Your task to perform on an android device: change the clock display to show seconds Image 0: 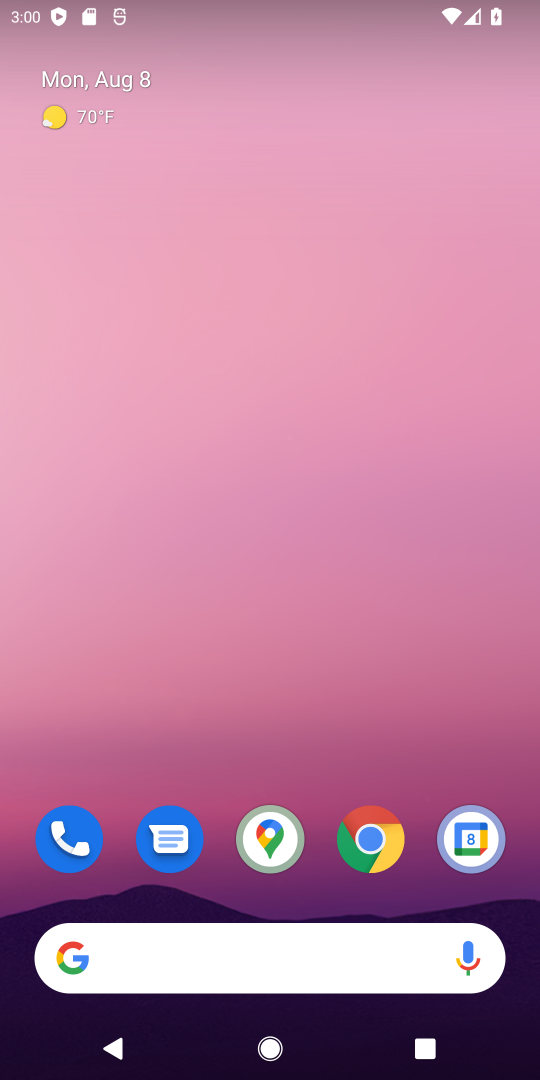
Step 0: press home button
Your task to perform on an android device: change the clock display to show seconds Image 1: 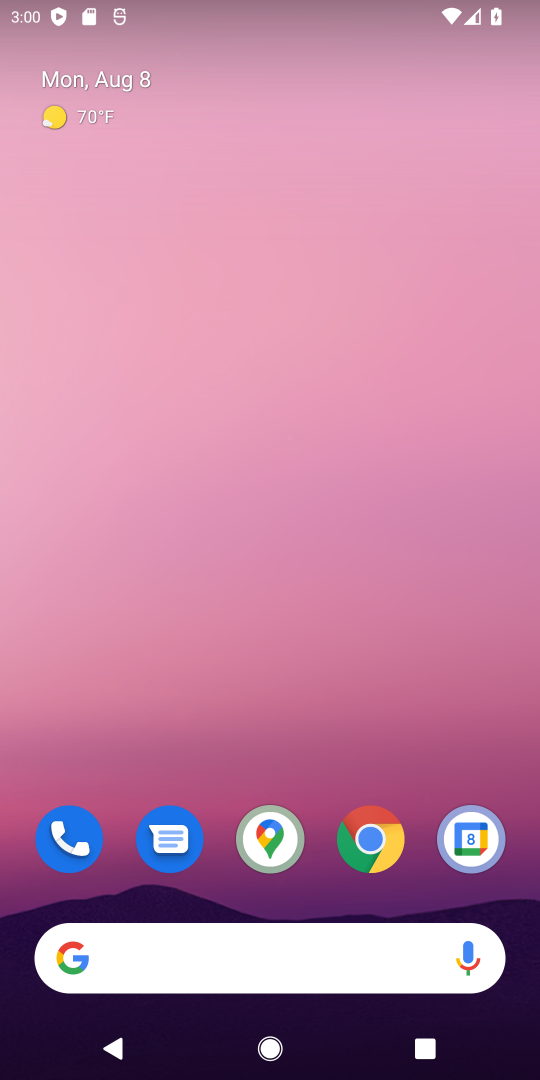
Step 1: drag from (401, 741) to (447, 306)
Your task to perform on an android device: change the clock display to show seconds Image 2: 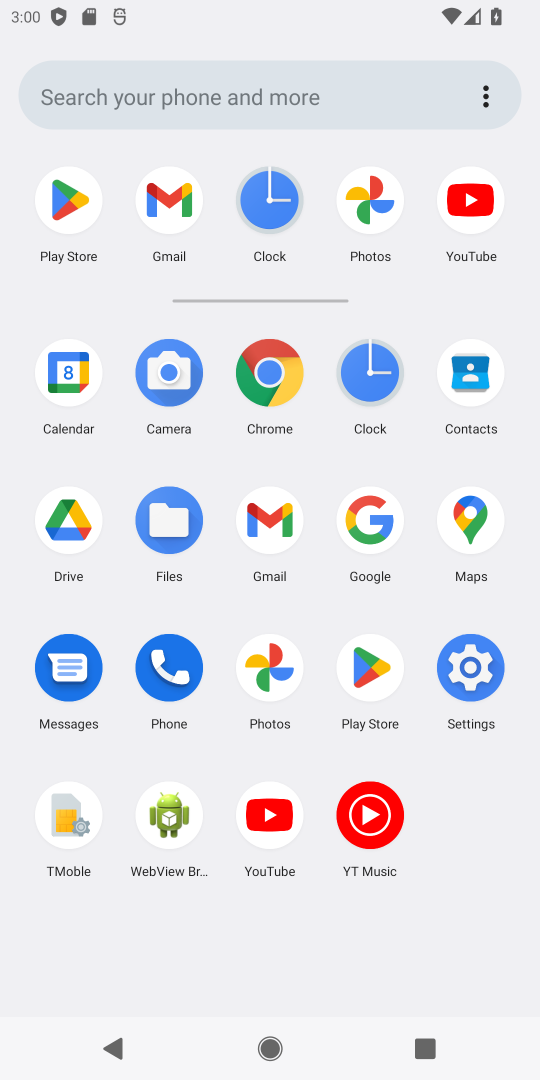
Step 2: click (366, 373)
Your task to perform on an android device: change the clock display to show seconds Image 3: 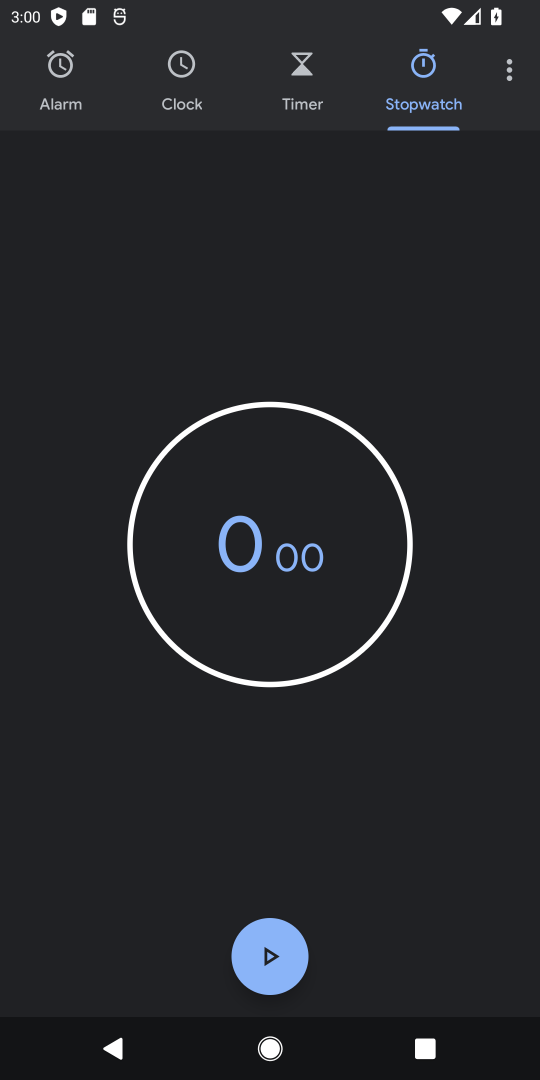
Step 3: click (513, 78)
Your task to perform on an android device: change the clock display to show seconds Image 4: 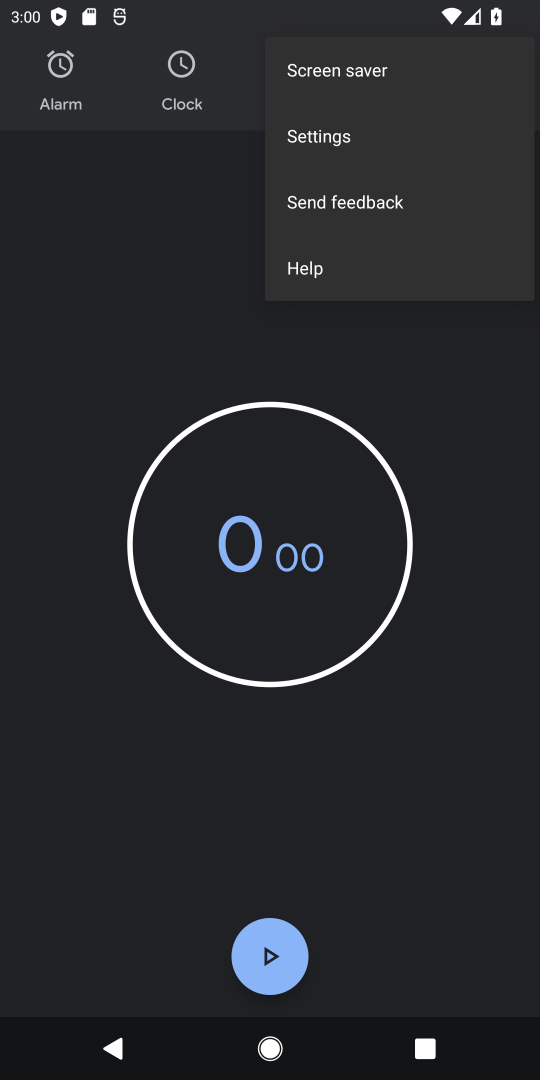
Step 4: click (359, 137)
Your task to perform on an android device: change the clock display to show seconds Image 5: 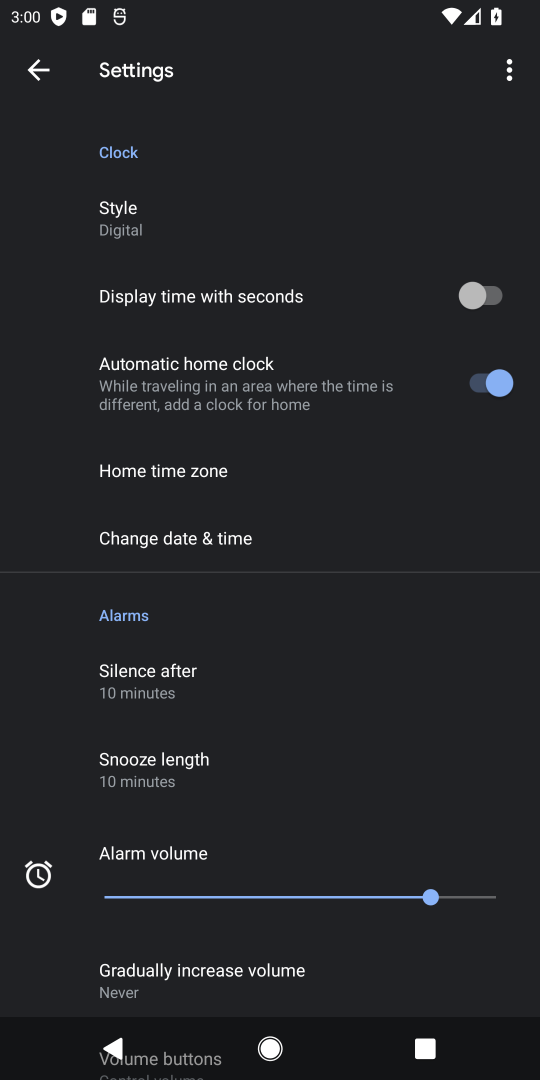
Step 5: drag from (394, 565) to (399, 498)
Your task to perform on an android device: change the clock display to show seconds Image 6: 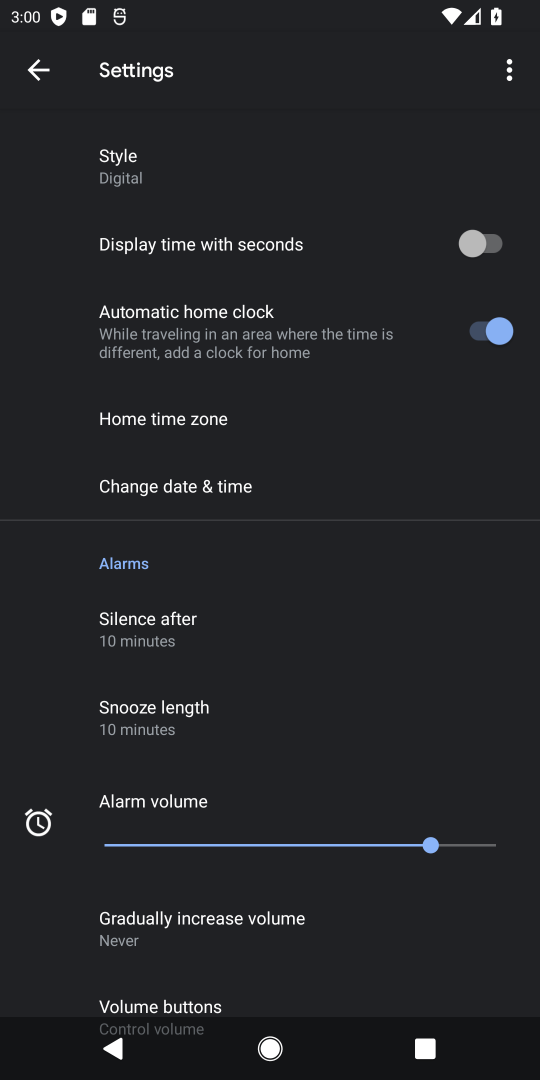
Step 6: drag from (461, 729) to (457, 553)
Your task to perform on an android device: change the clock display to show seconds Image 7: 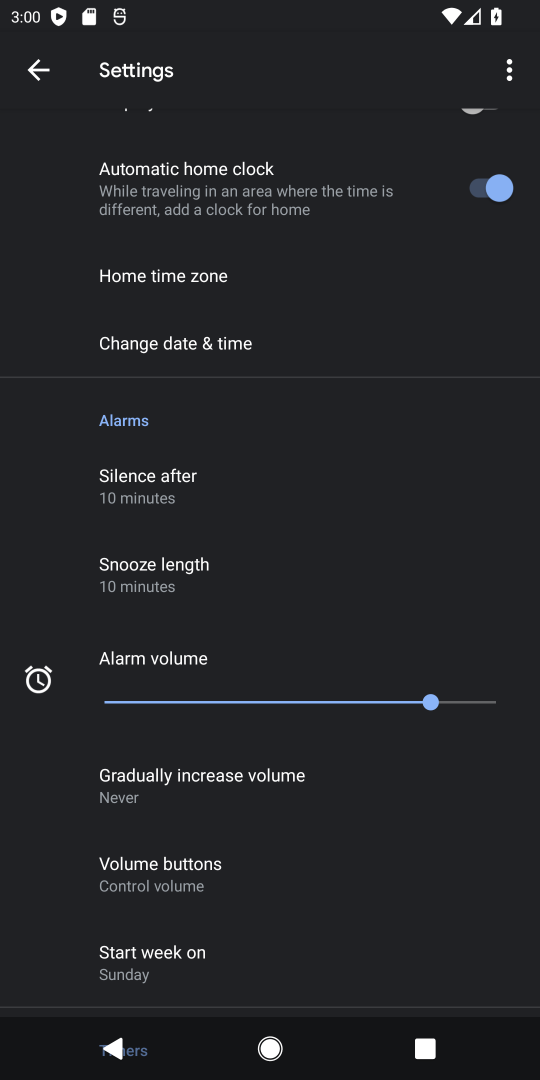
Step 7: drag from (441, 793) to (458, 586)
Your task to perform on an android device: change the clock display to show seconds Image 8: 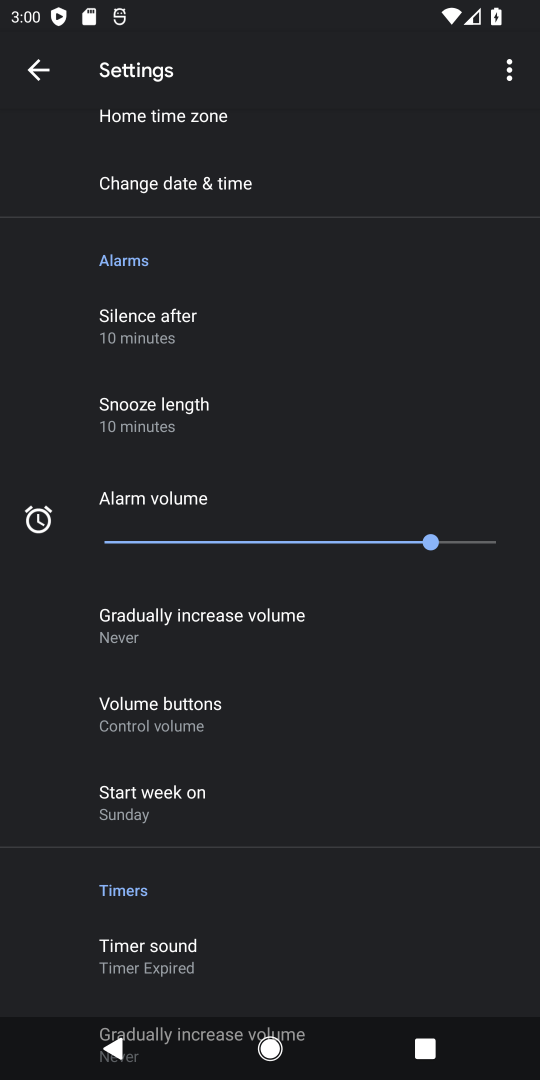
Step 8: drag from (450, 794) to (459, 576)
Your task to perform on an android device: change the clock display to show seconds Image 9: 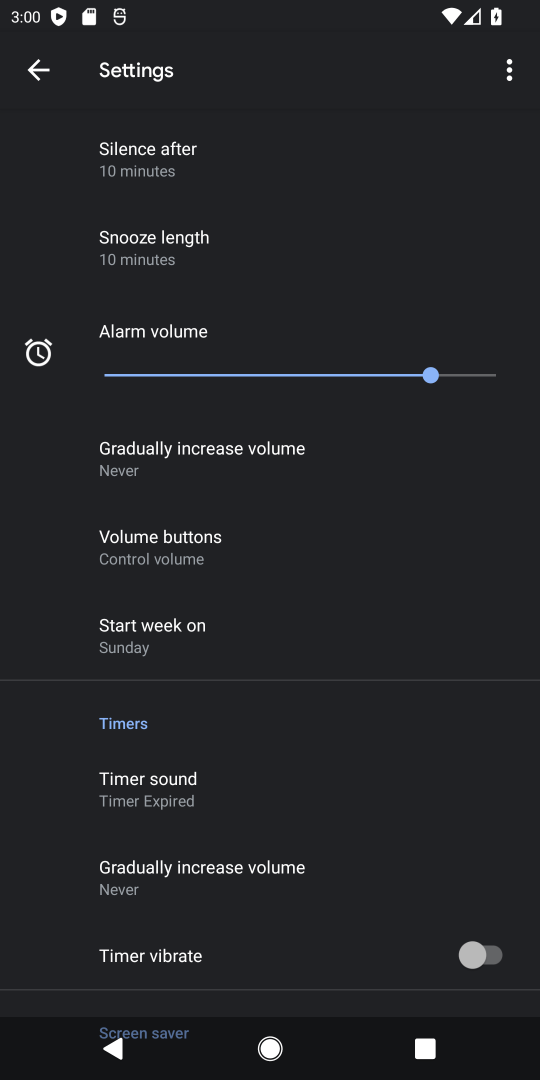
Step 9: drag from (436, 732) to (446, 491)
Your task to perform on an android device: change the clock display to show seconds Image 10: 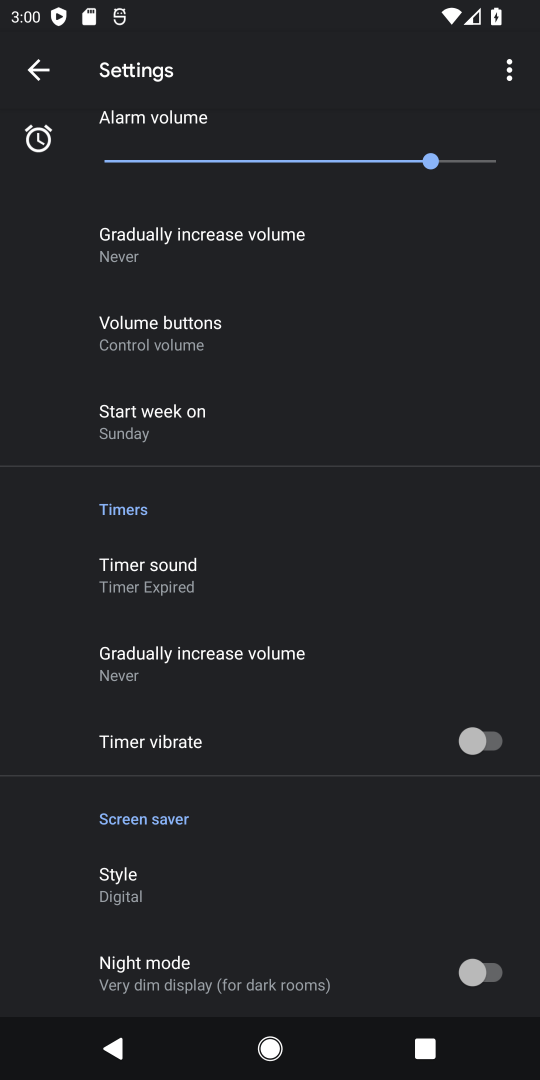
Step 10: drag from (441, 332) to (441, 522)
Your task to perform on an android device: change the clock display to show seconds Image 11: 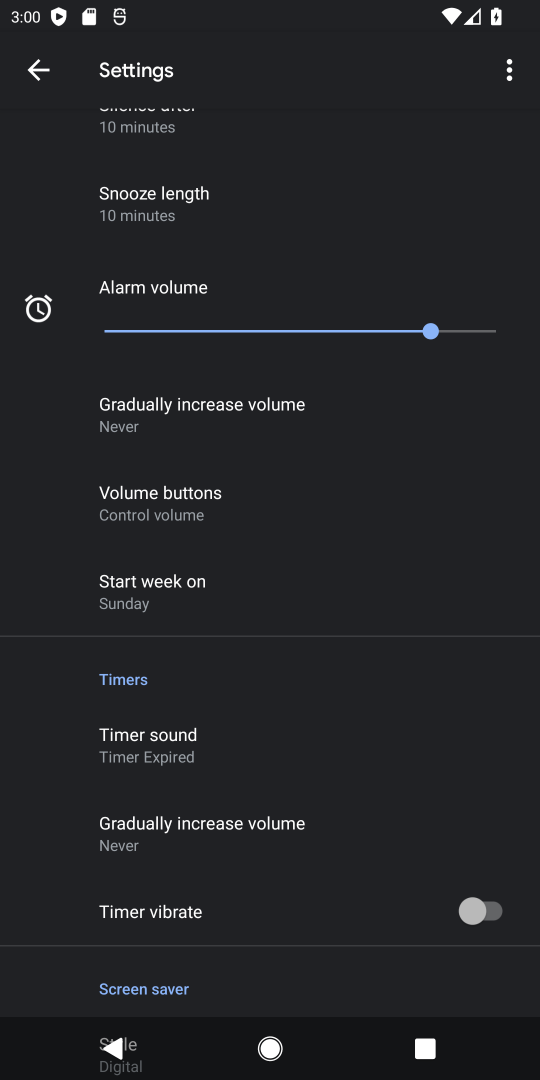
Step 11: drag from (461, 373) to (463, 564)
Your task to perform on an android device: change the clock display to show seconds Image 12: 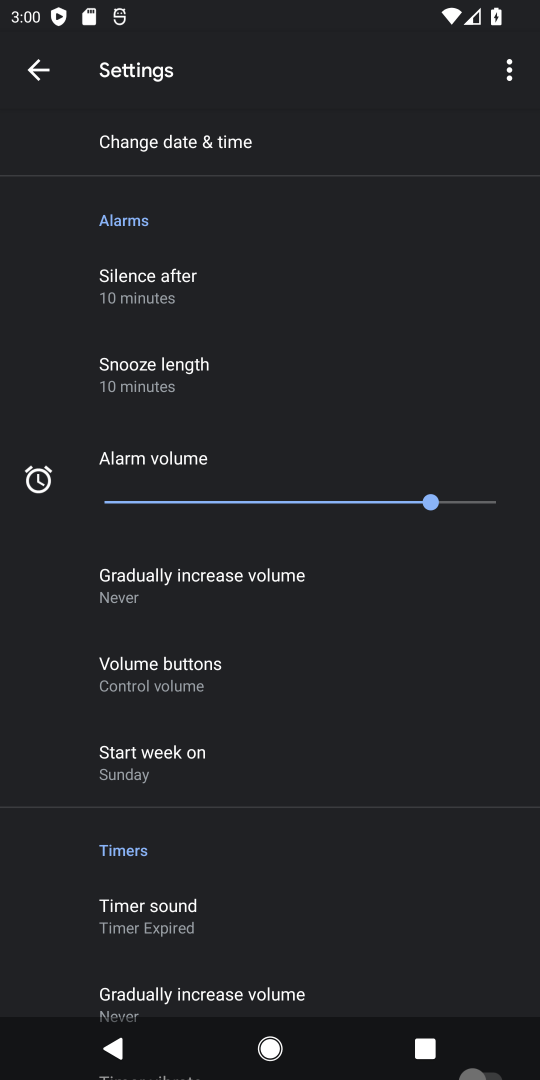
Step 12: drag from (466, 334) to (457, 527)
Your task to perform on an android device: change the clock display to show seconds Image 13: 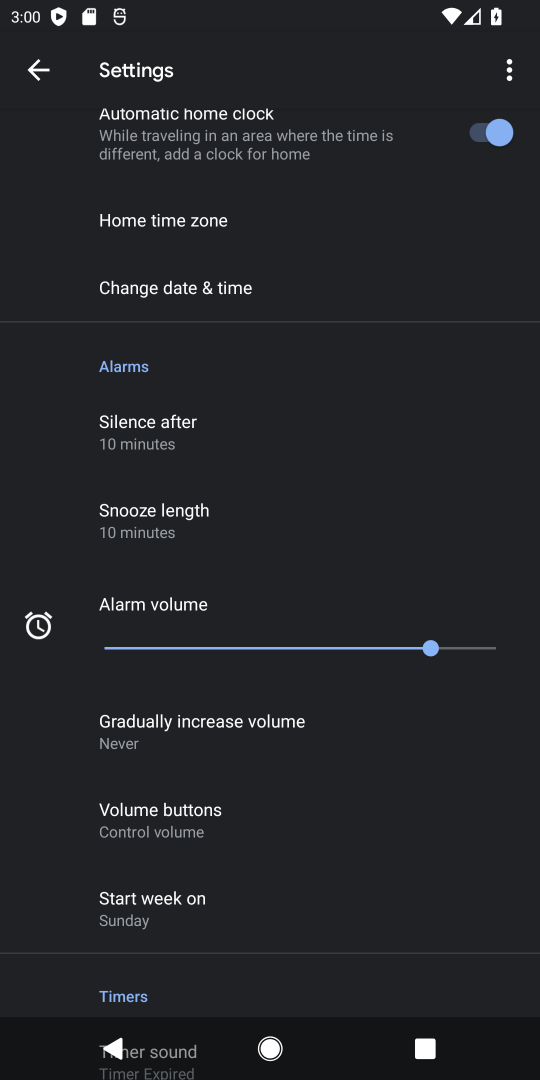
Step 13: drag from (441, 284) to (445, 453)
Your task to perform on an android device: change the clock display to show seconds Image 14: 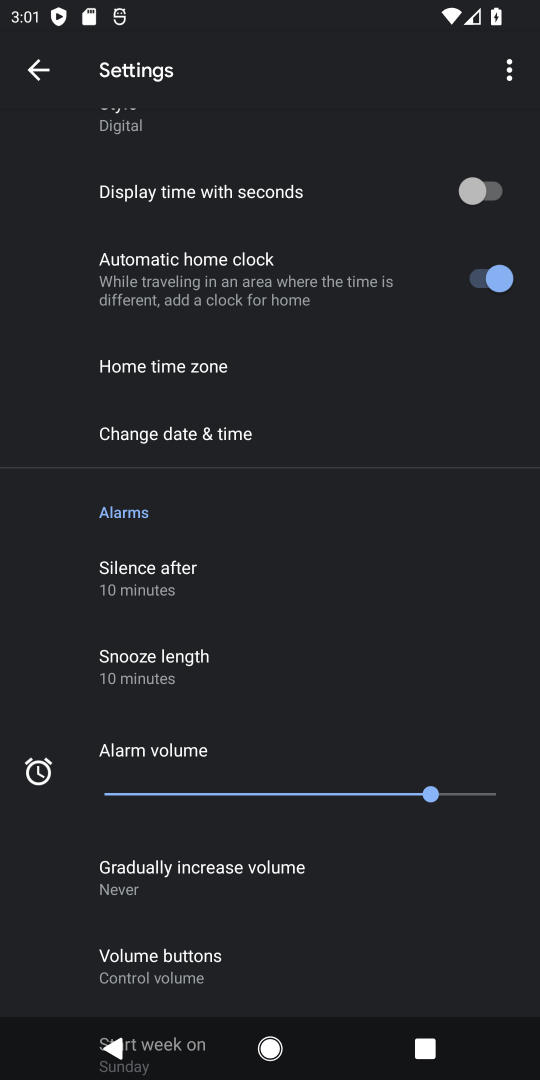
Step 14: drag from (420, 244) to (420, 414)
Your task to perform on an android device: change the clock display to show seconds Image 15: 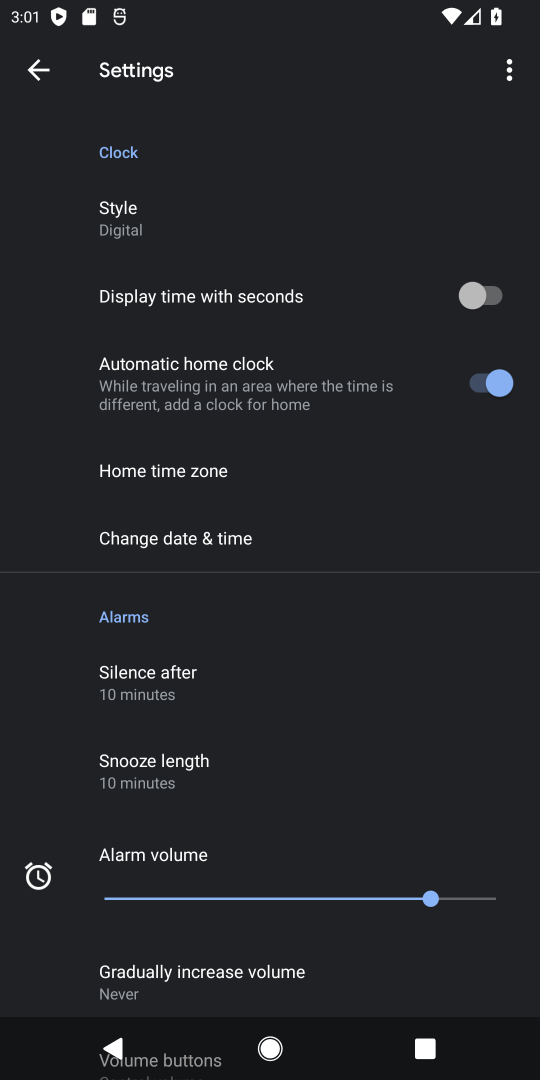
Step 15: click (473, 305)
Your task to perform on an android device: change the clock display to show seconds Image 16: 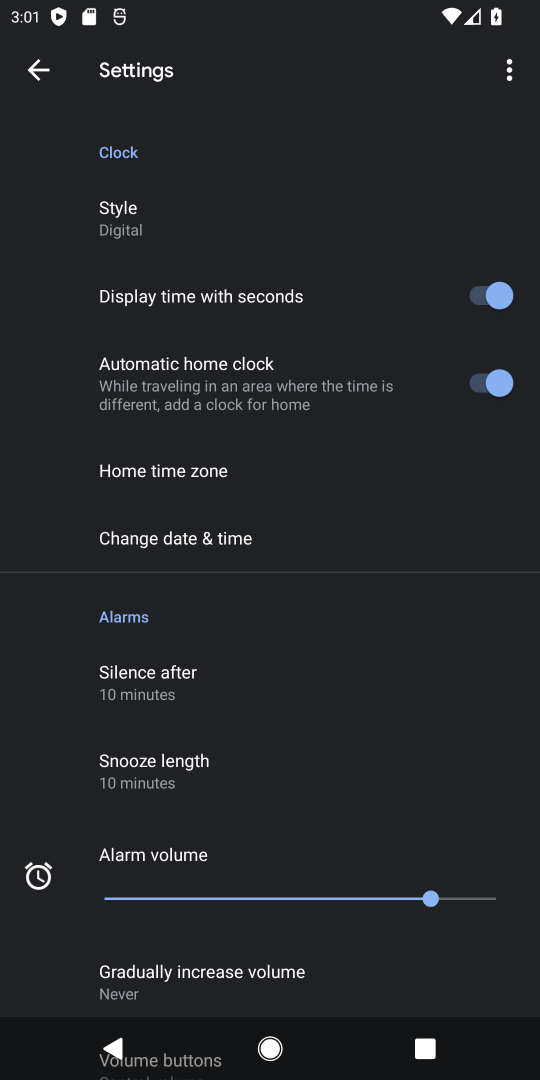
Step 16: task complete